Your task to perform on an android device: turn pop-ups off in chrome Image 0: 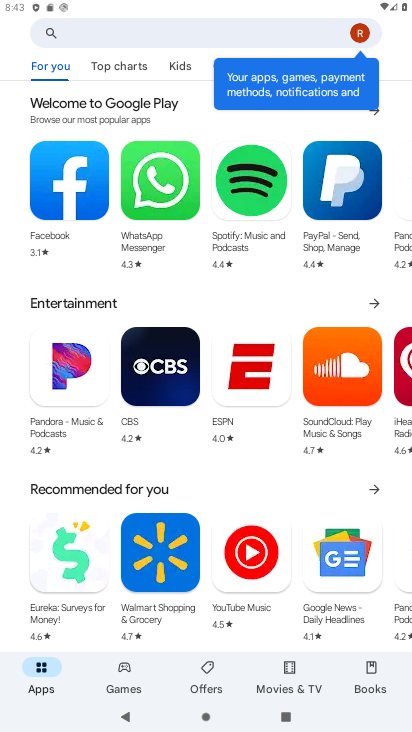
Step 0: press home button
Your task to perform on an android device: turn pop-ups off in chrome Image 1: 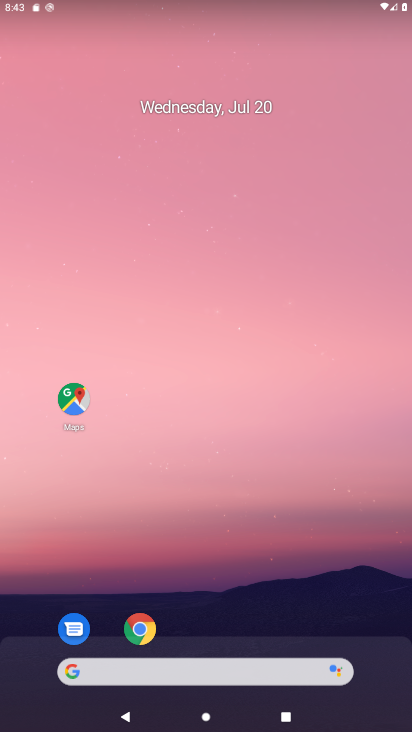
Step 1: click (146, 630)
Your task to perform on an android device: turn pop-ups off in chrome Image 2: 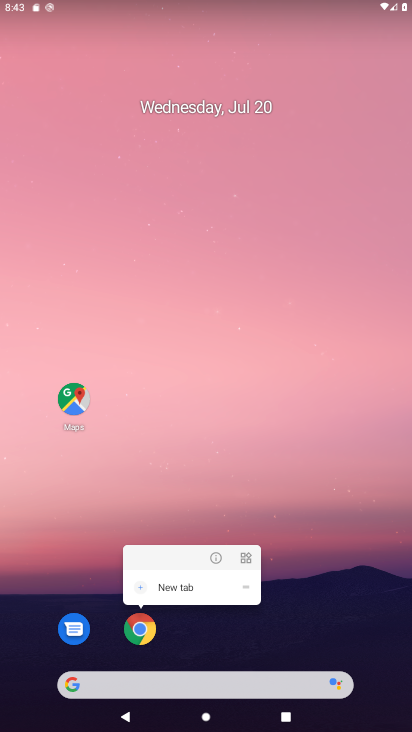
Step 2: click (143, 631)
Your task to perform on an android device: turn pop-ups off in chrome Image 3: 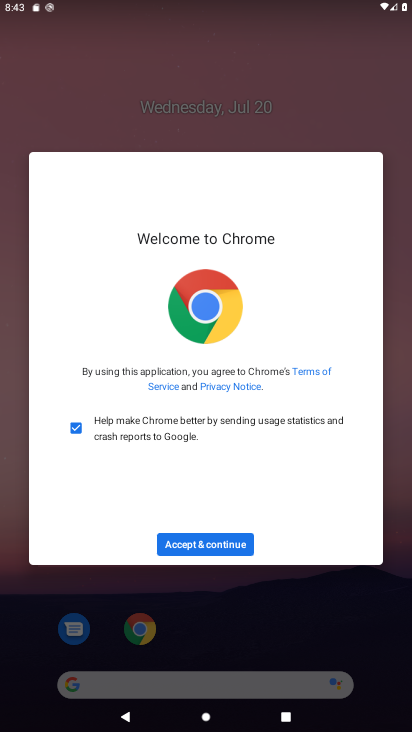
Step 3: click (210, 544)
Your task to perform on an android device: turn pop-ups off in chrome Image 4: 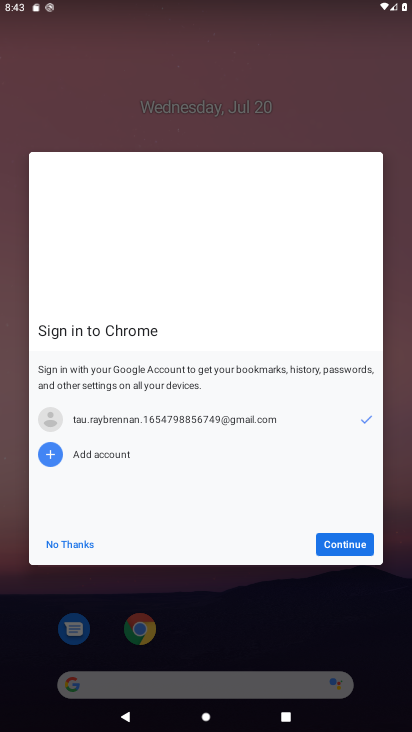
Step 4: click (340, 547)
Your task to perform on an android device: turn pop-ups off in chrome Image 5: 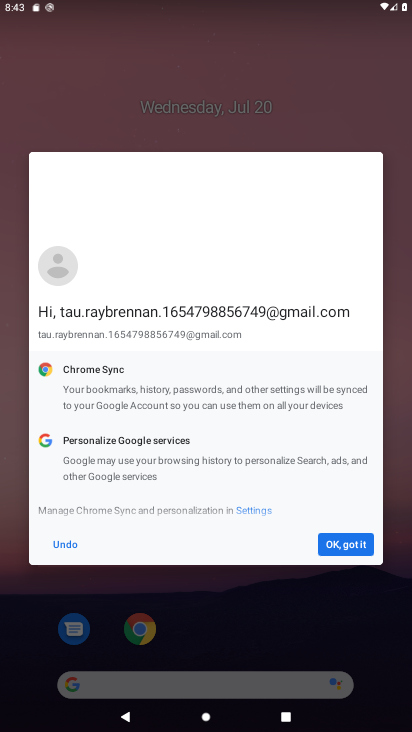
Step 5: click (340, 550)
Your task to perform on an android device: turn pop-ups off in chrome Image 6: 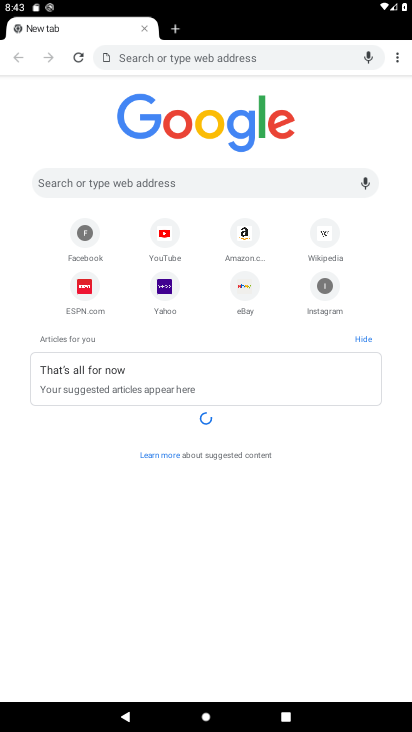
Step 6: drag from (393, 56) to (319, 270)
Your task to perform on an android device: turn pop-ups off in chrome Image 7: 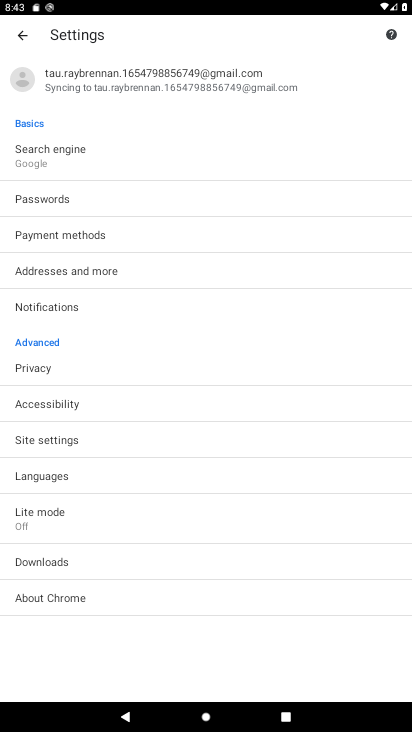
Step 7: click (97, 442)
Your task to perform on an android device: turn pop-ups off in chrome Image 8: 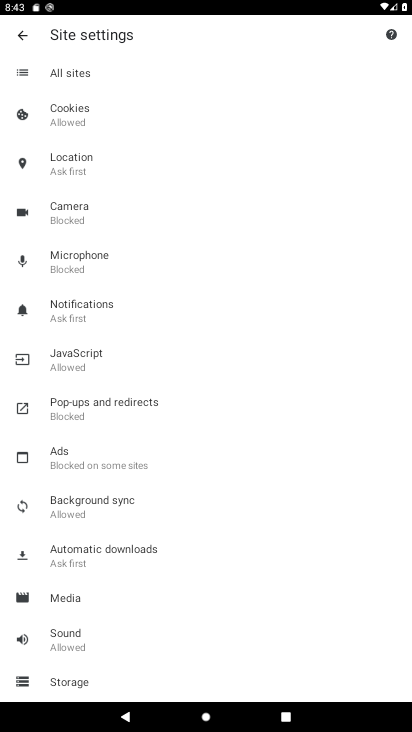
Step 8: click (104, 405)
Your task to perform on an android device: turn pop-ups off in chrome Image 9: 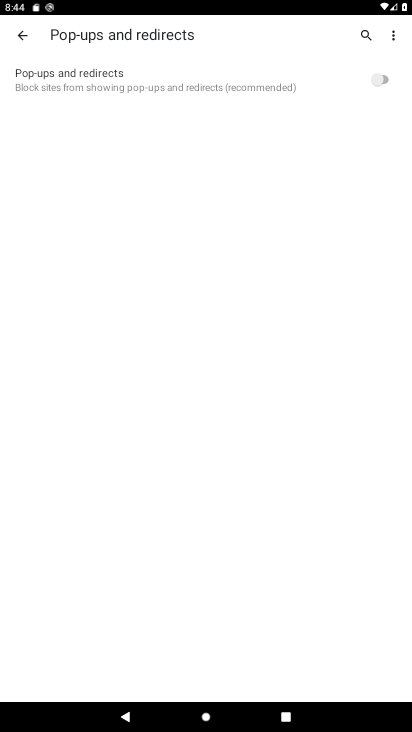
Step 9: task complete